Your task to perform on an android device: turn off picture-in-picture Image 0: 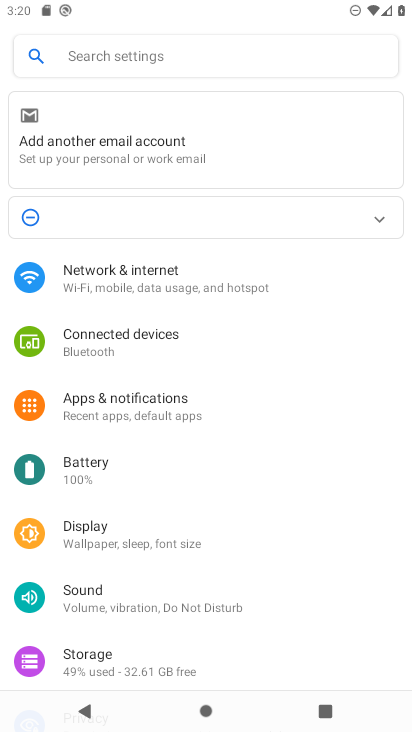
Step 0: press home button
Your task to perform on an android device: turn off picture-in-picture Image 1: 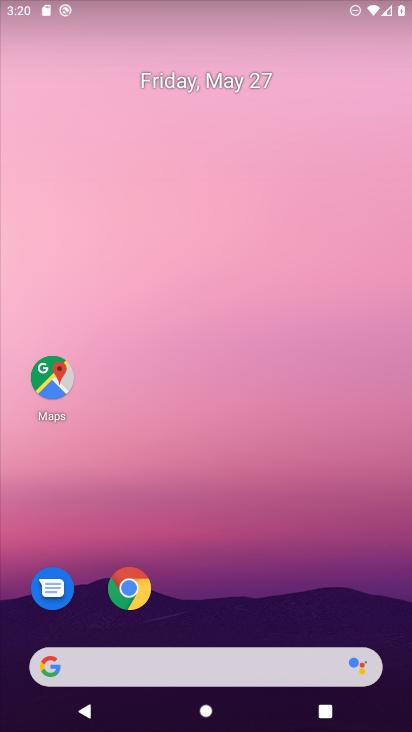
Step 1: click (121, 593)
Your task to perform on an android device: turn off picture-in-picture Image 2: 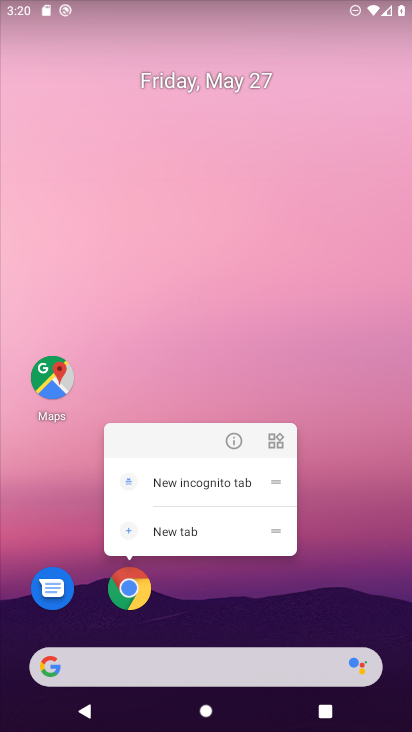
Step 2: click (235, 446)
Your task to perform on an android device: turn off picture-in-picture Image 3: 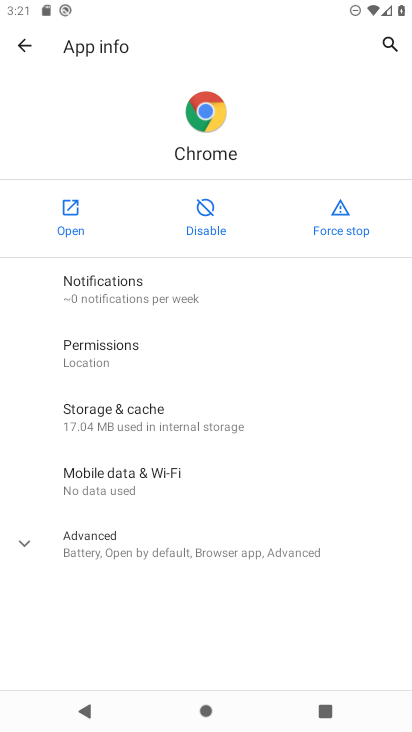
Step 3: drag from (235, 446) to (255, 335)
Your task to perform on an android device: turn off picture-in-picture Image 4: 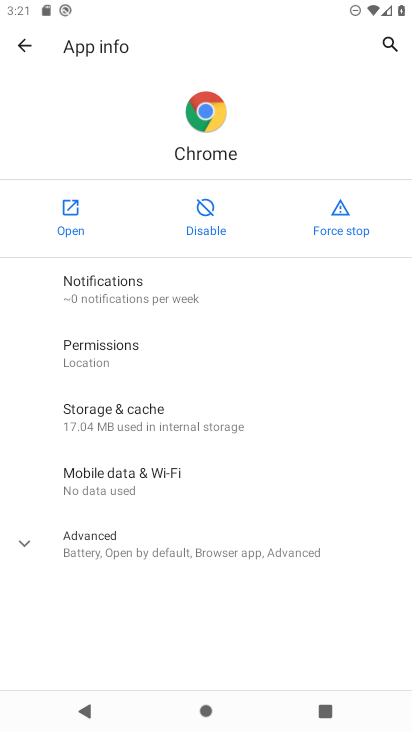
Step 4: click (138, 552)
Your task to perform on an android device: turn off picture-in-picture Image 5: 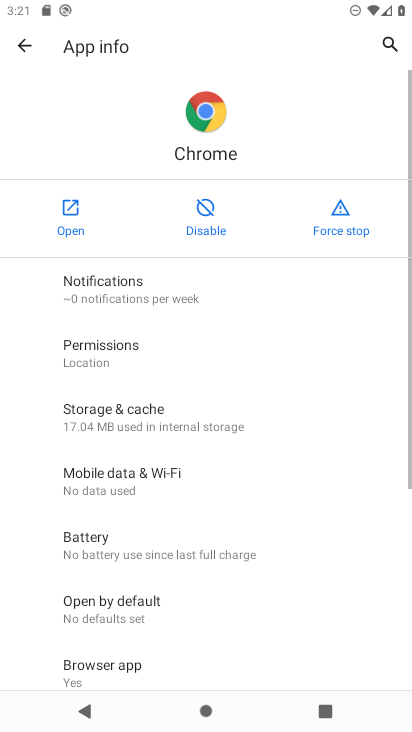
Step 5: drag from (142, 543) to (230, 262)
Your task to perform on an android device: turn off picture-in-picture Image 6: 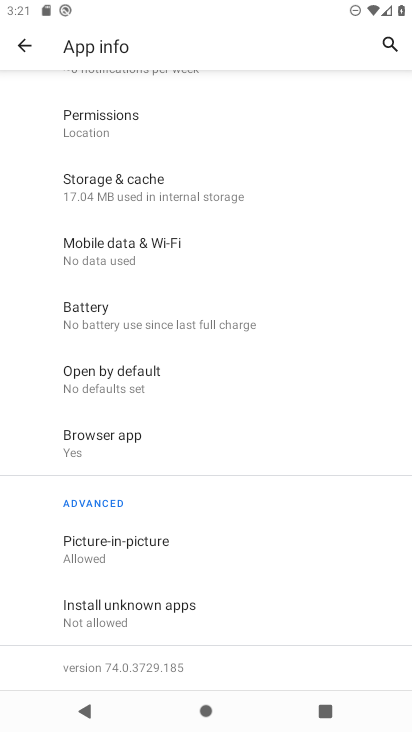
Step 6: click (188, 541)
Your task to perform on an android device: turn off picture-in-picture Image 7: 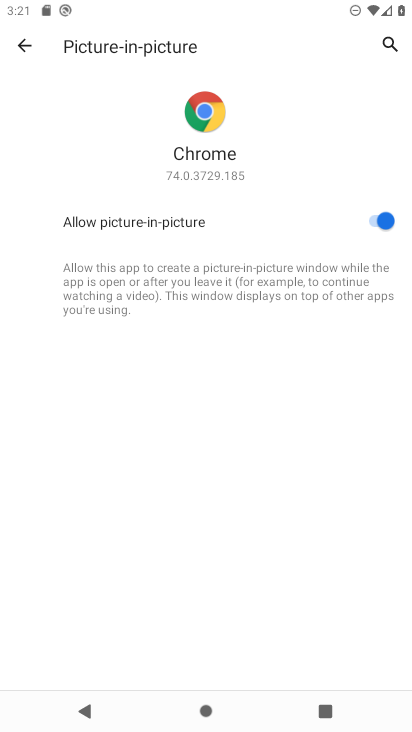
Step 7: click (393, 232)
Your task to perform on an android device: turn off picture-in-picture Image 8: 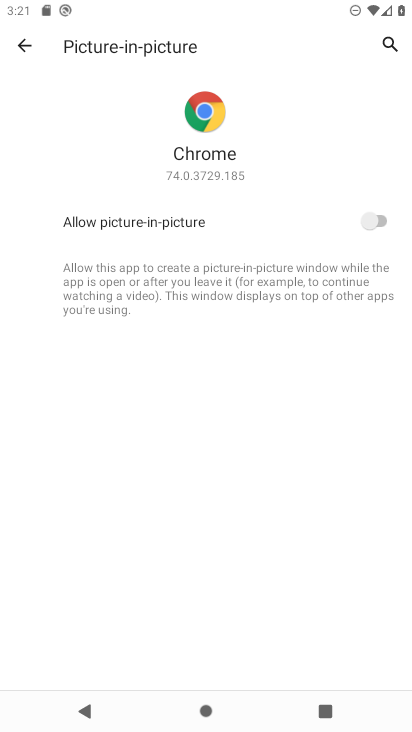
Step 8: task complete